Your task to perform on an android device: Show me productivity apps on the Play Store Image 0: 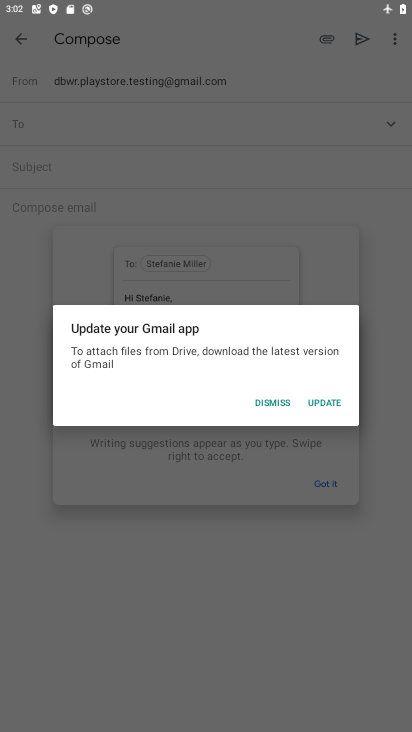
Step 0: press home button
Your task to perform on an android device: Show me productivity apps on the Play Store Image 1: 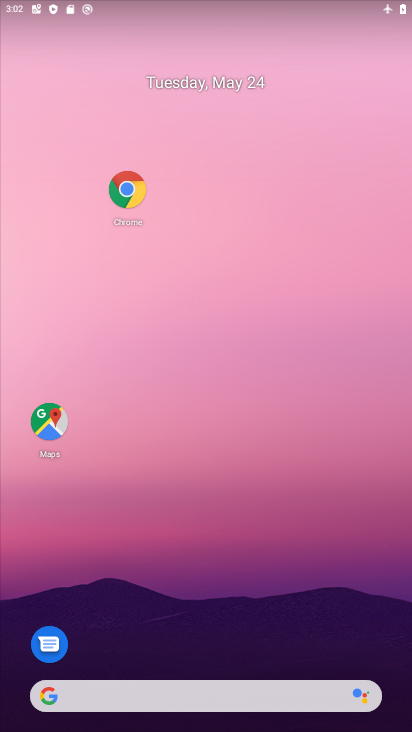
Step 1: drag from (193, 613) to (315, 2)
Your task to perform on an android device: Show me productivity apps on the Play Store Image 2: 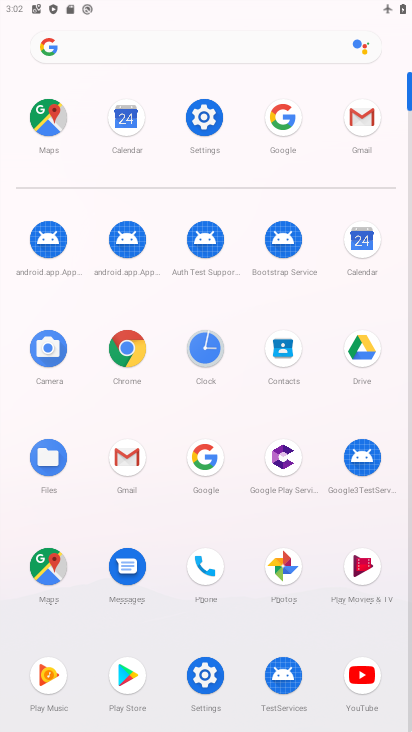
Step 2: click (155, 682)
Your task to perform on an android device: Show me productivity apps on the Play Store Image 3: 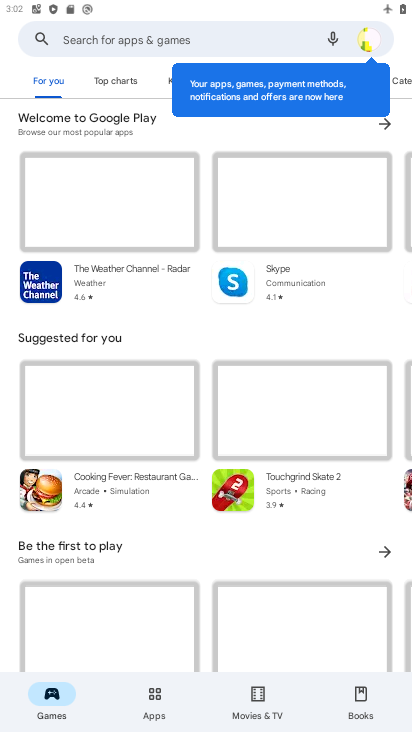
Step 3: click (149, 707)
Your task to perform on an android device: Show me productivity apps on the Play Store Image 4: 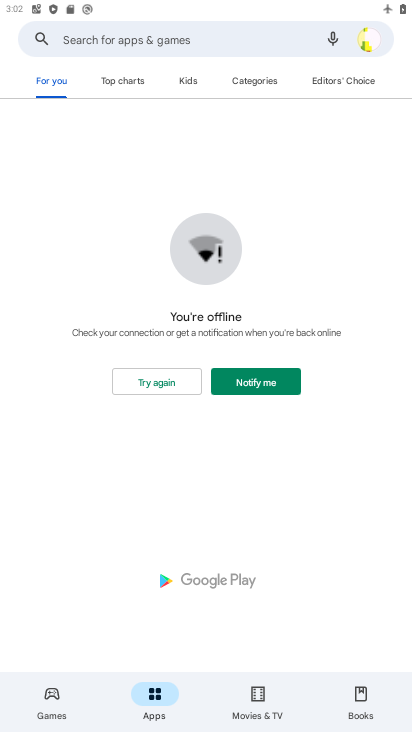
Step 4: click (241, 84)
Your task to perform on an android device: Show me productivity apps on the Play Store Image 5: 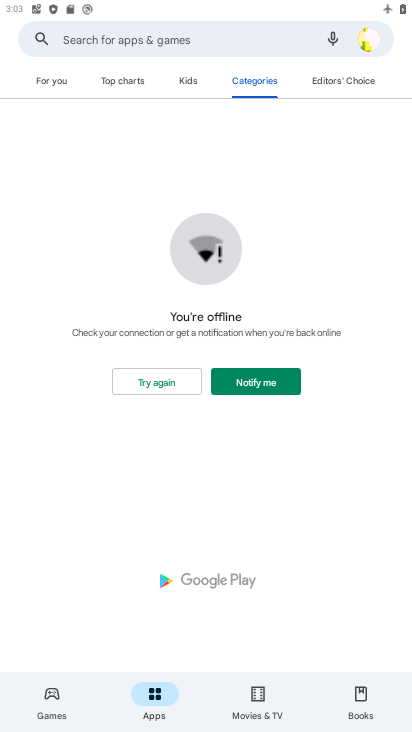
Step 5: task complete